Your task to perform on an android device: Open Android settings Image 0: 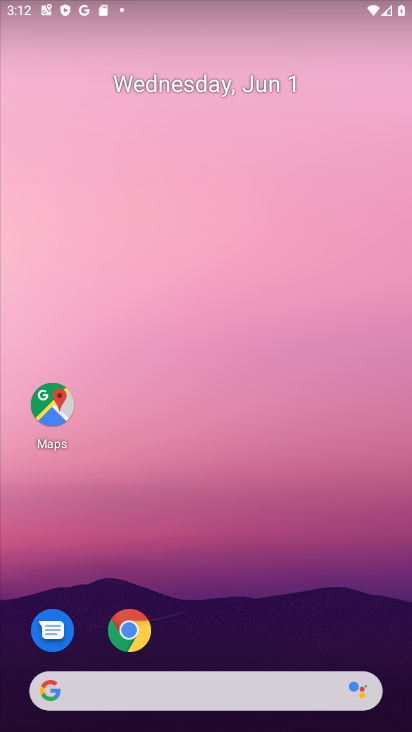
Step 0: drag from (265, 514) to (286, 127)
Your task to perform on an android device: Open Android settings Image 1: 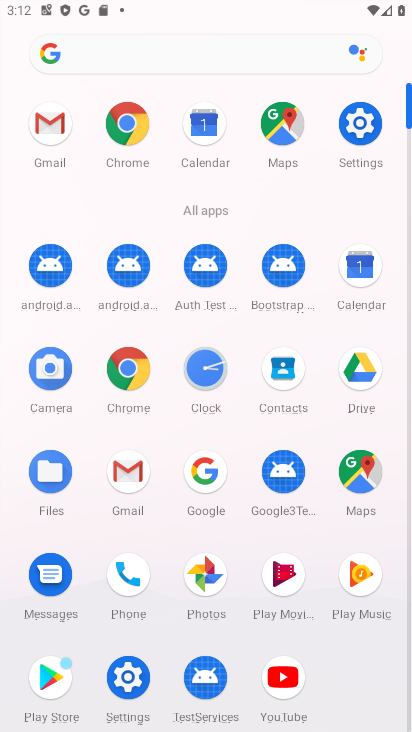
Step 1: click (362, 115)
Your task to perform on an android device: Open Android settings Image 2: 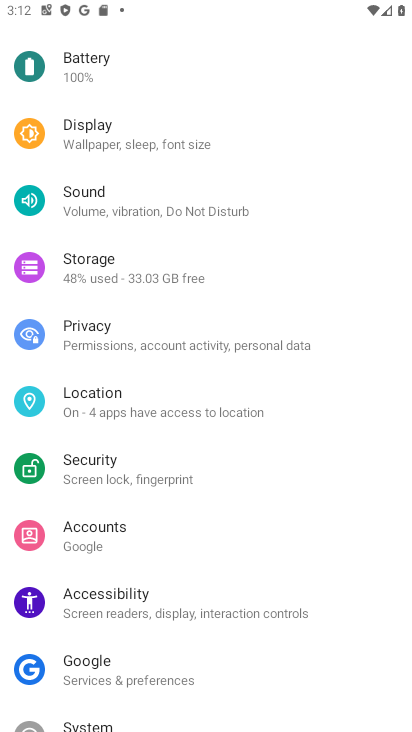
Step 2: drag from (196, 582) to (249, 88)
Your task to perform on an android device: Open Android settings Image 3: 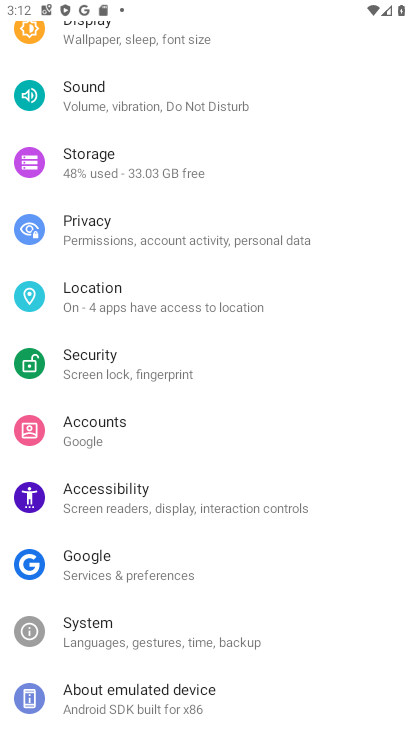
Step 3: drag from (185, 657) to (240, 62)
Your task to perform on an android device: Open Android settings Image 4: 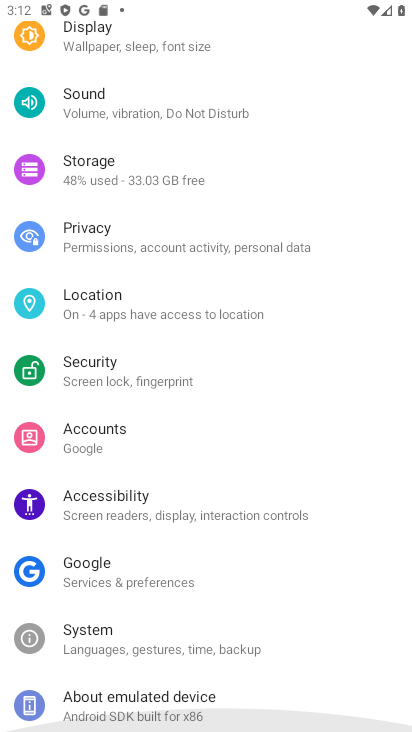
Step 4: click (98, 709)
Your task to perform on an android device: Open Android settings Image 5: 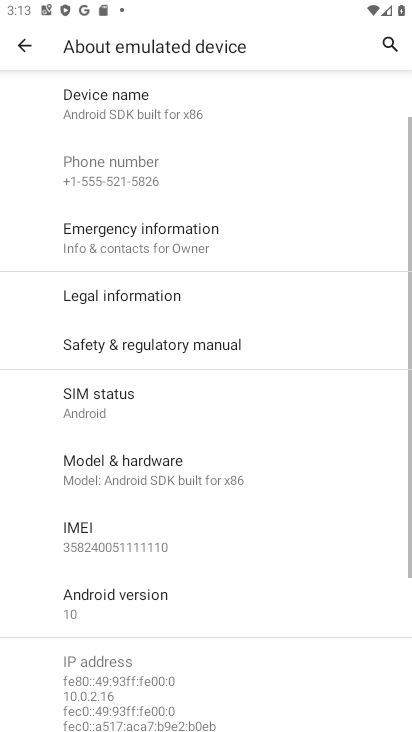
Step 5: task complete